Your task to perform on an android device: move a message to another label in the gmail app Image 0: 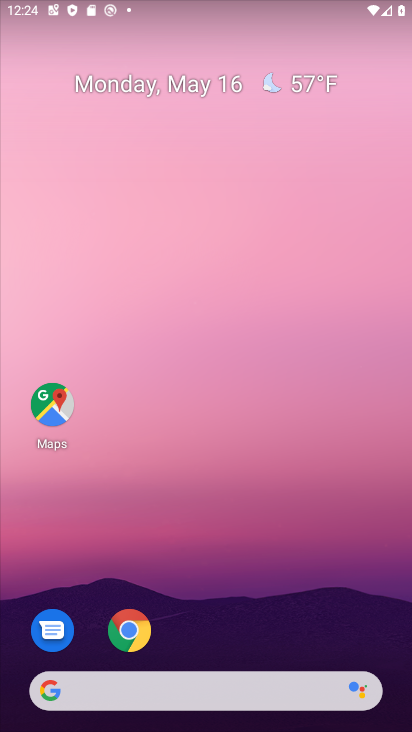
Step 0: drag from (245, 665) to (315, 58)
Your task to perform on an android device: move a message to another label in the gmail app Image 1: 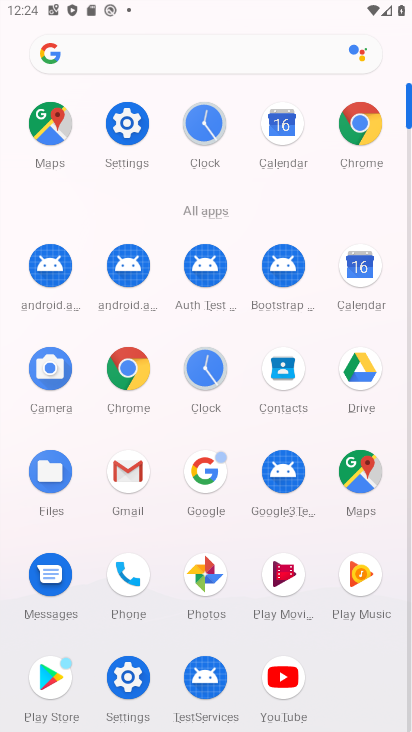
Step 1: click (124, 476)
Your task to perform on an android device: move a message to another label in the gmail app Image 2: 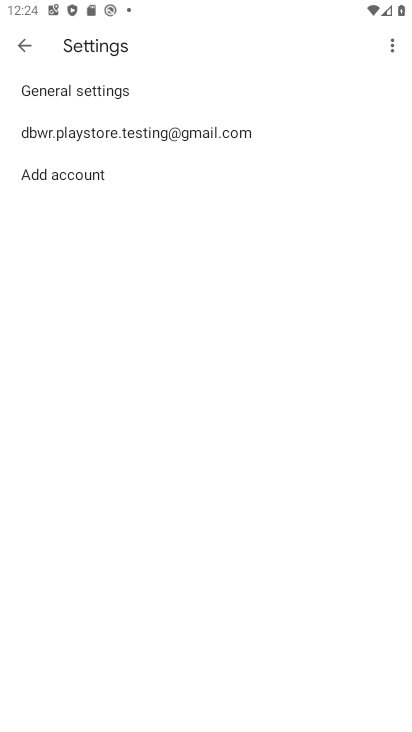
Step 2: click (25, 46)
Your task to perform on an android device: move a message to another label in the gmail app Image 3: 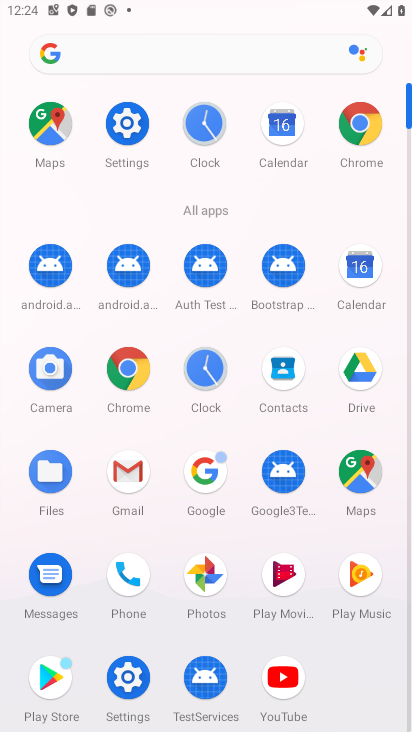
Step 3: click (128, 461)
Your task to perform on an android device: move a message to another label in the gmail app Image 4: 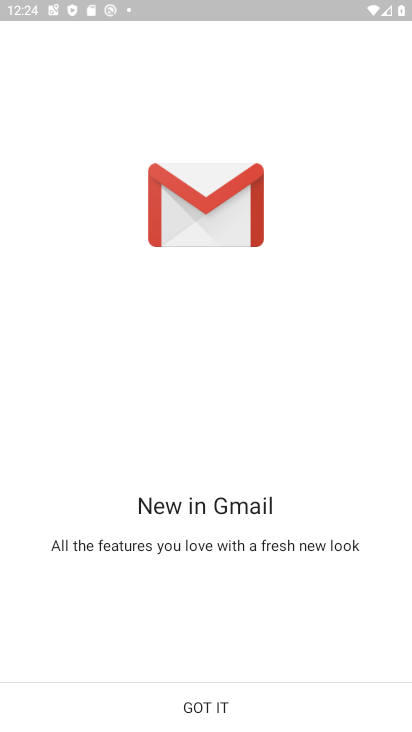
Step 4: click (198, 698)
Your task to perform on an android device: move a message to another label in the gmail app Image 5: 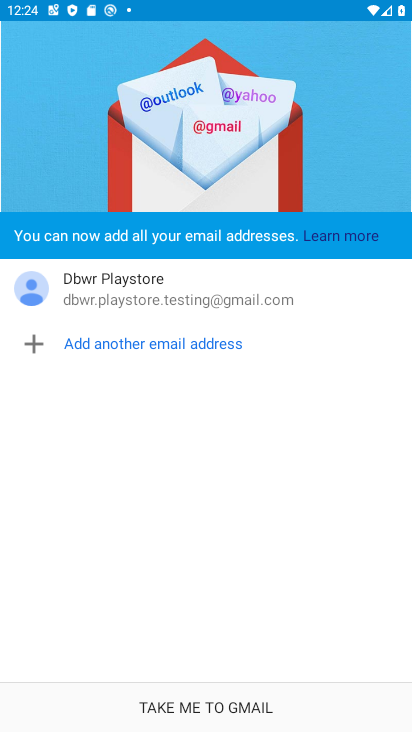
Step 5: click (203, 707)
Your task to perform on an android device: move a message to another label in the gmail app Image 6: 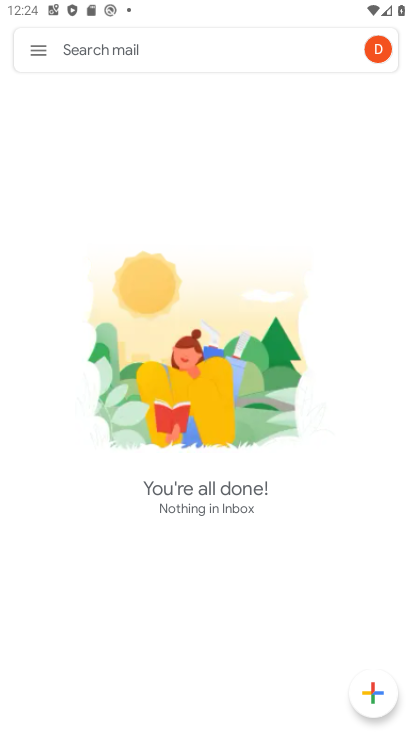
Step 6: task complete